Your task to perform on an android device: turn on the 12-hour format for clock Image 0: 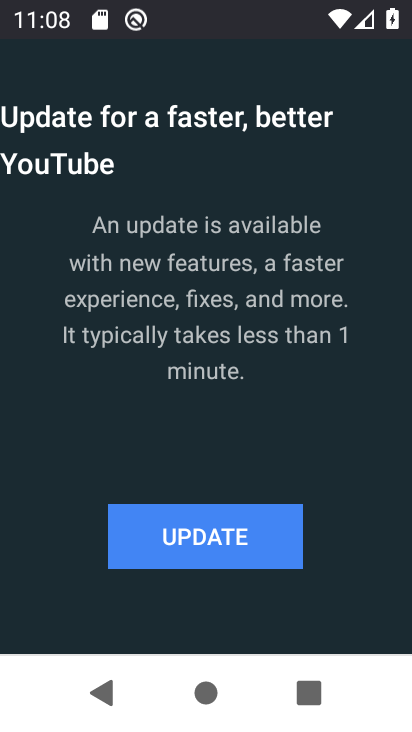
Step 0: press home button
Your task to perform on an android device: turn on the 12-hour format for clock Image 1: 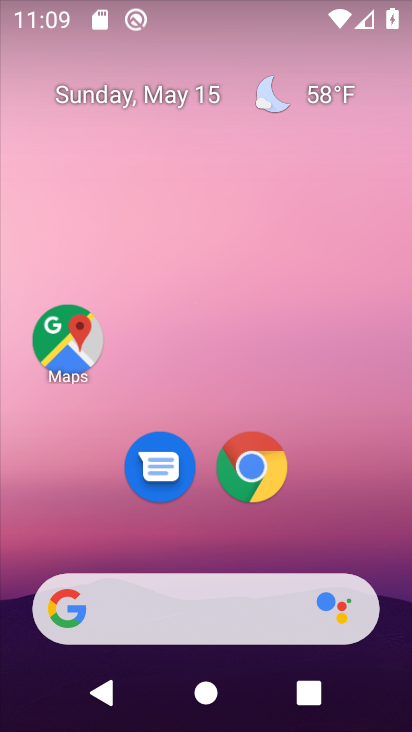
Step 1: drag from (192, 534) to (250, 78)
Your task to perform on an android device: turn on the 12-hour format for clock Image 2: 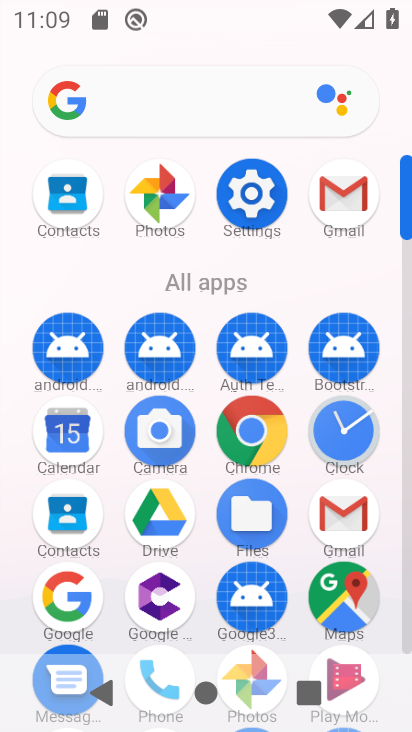
Step 2: click (352, 430)
Your task to perform on an android device: turn on the 12-hour format for clock Image 3: 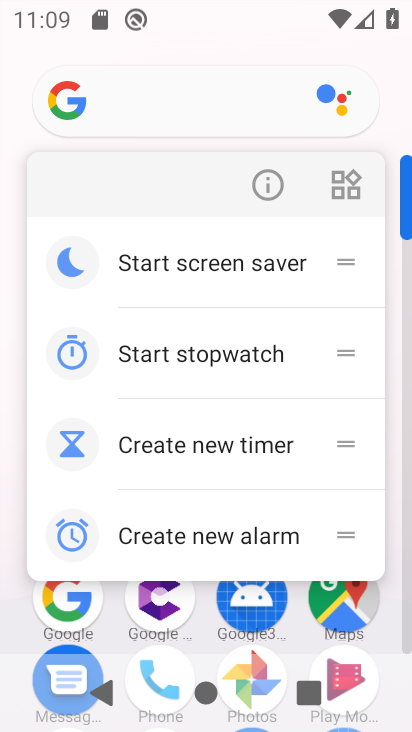
Step 3: click (112, 619)
Your task to perform on an android device: turn on the 12-hour format for clock Image 4: 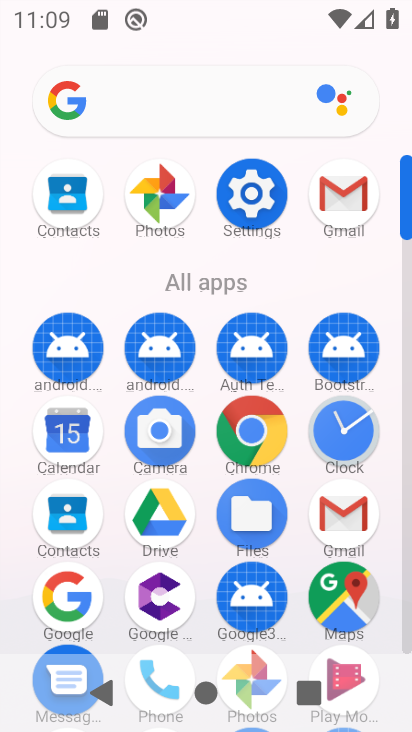
Step 4: click (341, 424)
Your task to perform on an android device: turn on the 12-hour format for clock Image 5: 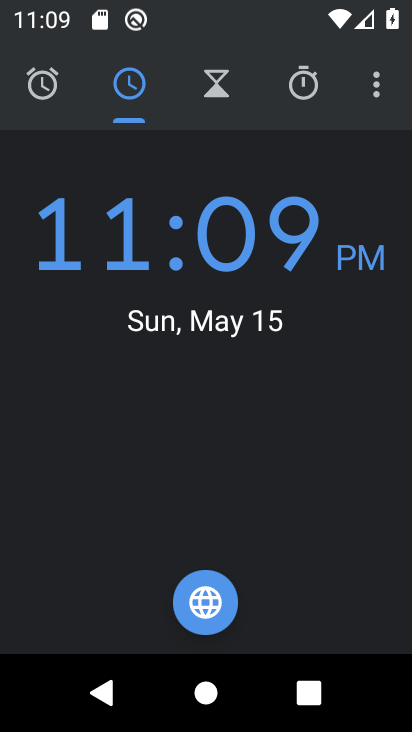
Step 5: click (381, 78)
Your task to perform on an android device: turn on the 12-hour format for clock Image 6: 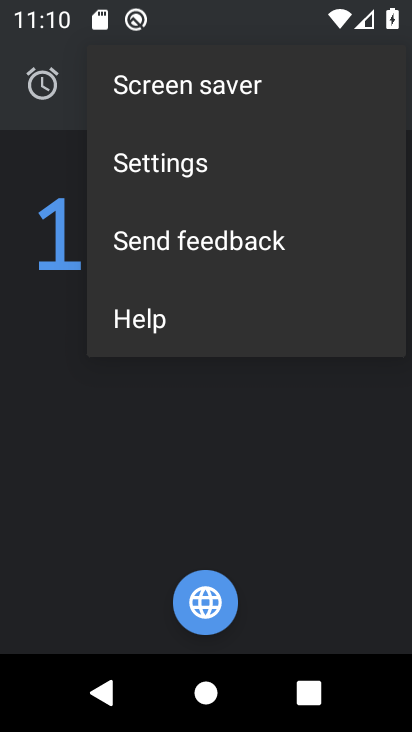
Step 6: click (219, 149)
Your task to perform on an android device: turn on the 12-hour format for clock Image 7: 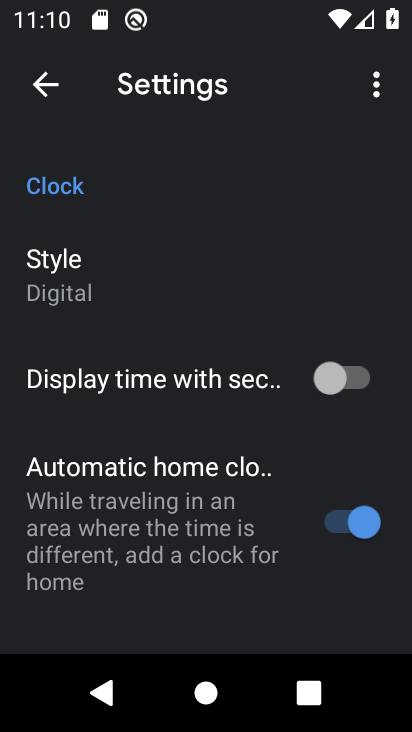
Step 7: drag from (213, 589) to (196, 281)
Your task to perform on an android device: turn on the 12-hour format for clock Image 8: 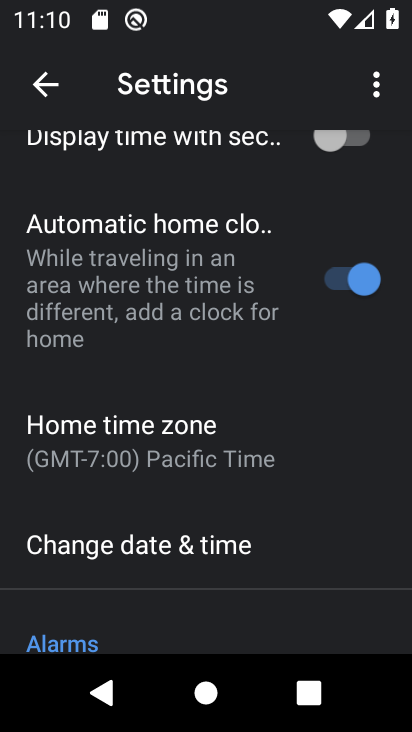
Step 8: click (203, 539)
Your task to perform on an android device: turn on the 12-hour format for clock Image 9: 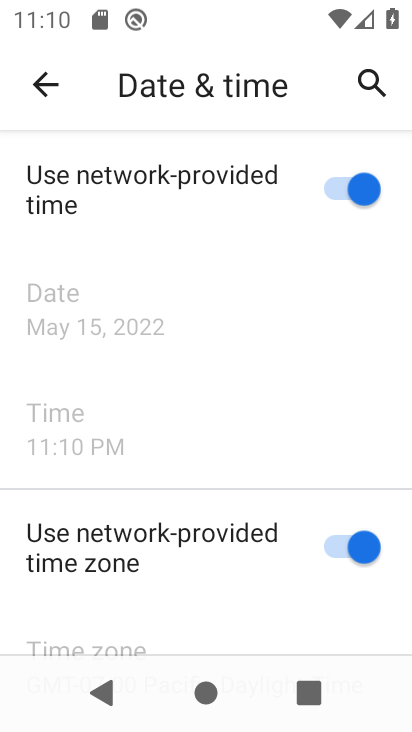
Step 9: task complete